Your task to perform on an android device: turn notification dots off Image 0: 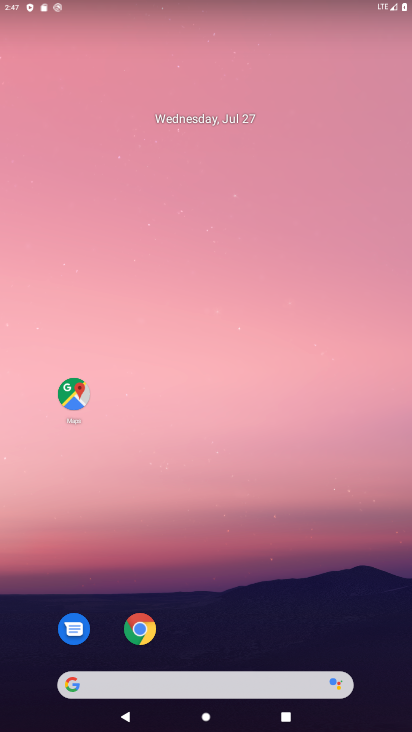
Step 0: press home button
Your task to perform on an android device: turn notification dots off Image 1: 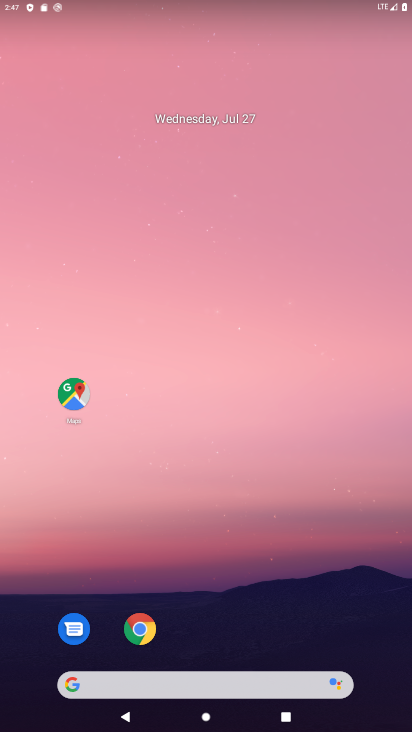
Step 1: drag from (190, 615) to (270, 28)
Your task to perform on an android device: turn notification dots off Image 2: 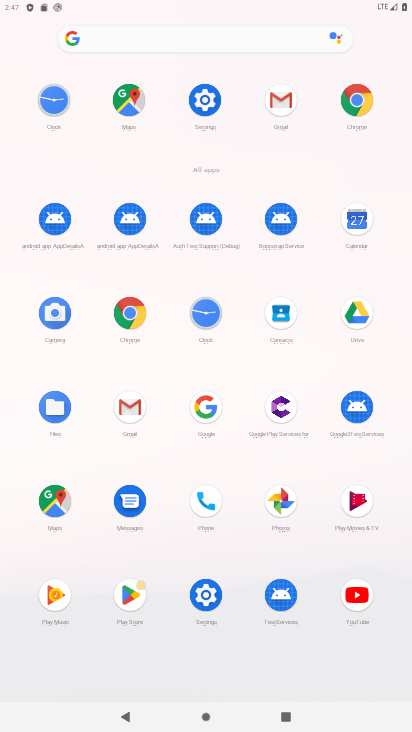
Step 2: click (206, 82)
Your task to perform on an android device: turn notification dots off Image 3: 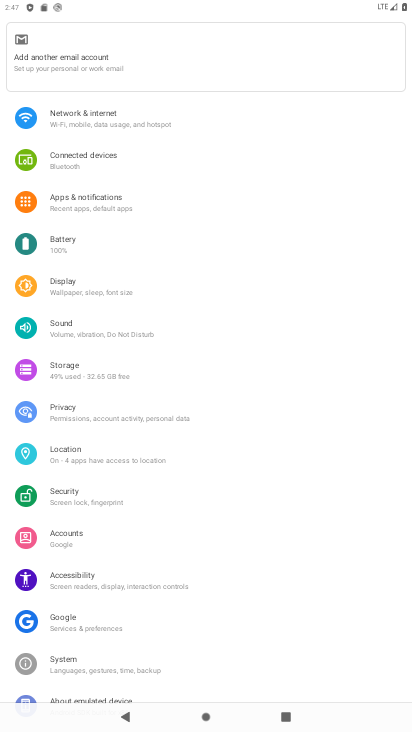
Step 3: click (53, 219)
Your task to perform on an android device: turn notification dots off Image 4: 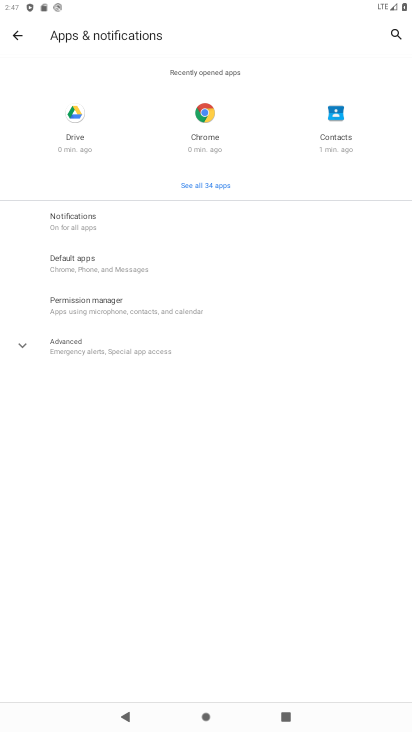
Step 4: click (154, 220)
Your task to perform on an android device: turn notification dots off Image 5: 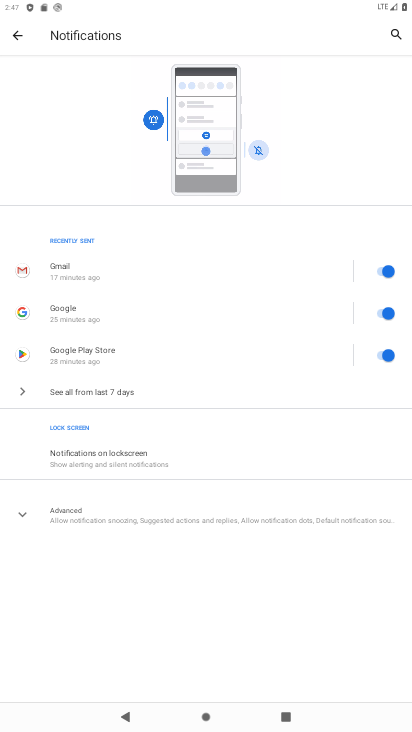
Step 5: click (173, 509)
Your task to perform on an android device: turn notification dots off Image 6: 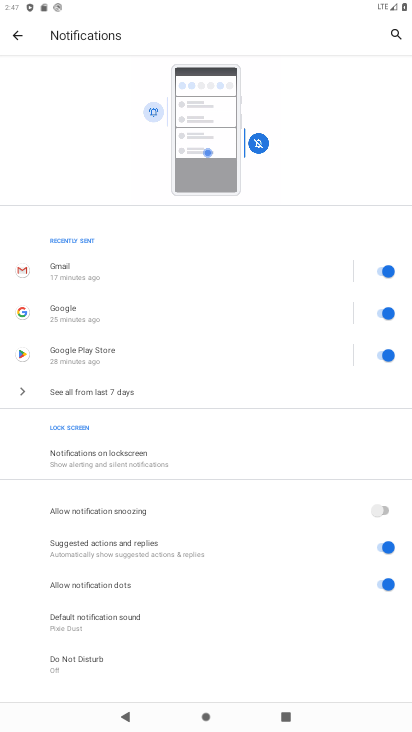
Step 6: click (173, 509)
Your task to perform on an android device: turn notification dots off Image 7: 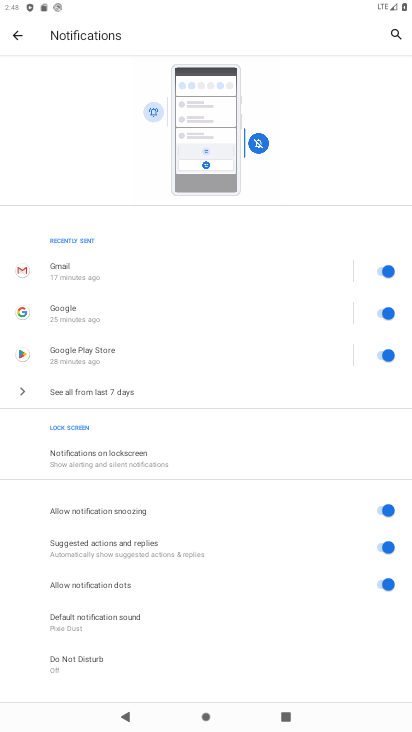
Step 7: click (385, 588)
Your task to perform on an android device: turn notification dots off Image 8: 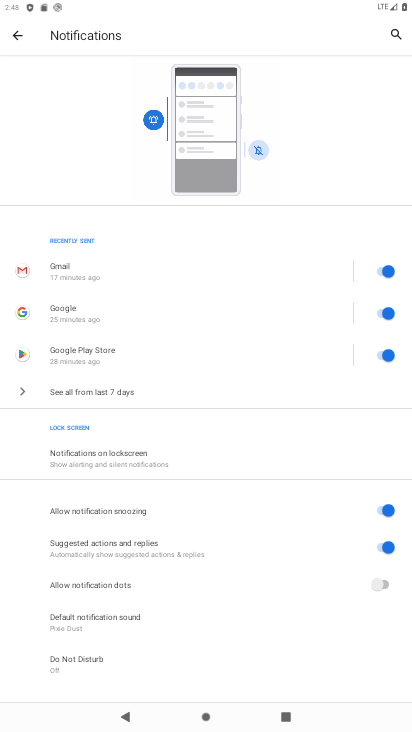
Step 8: task complete